Your task to perform on an android device: Go to display settings Image 0: 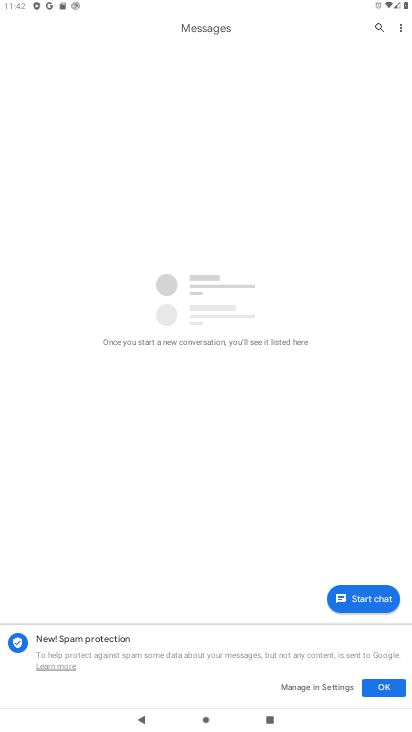
Step 0: press home button
Your task to perform on an android device: Go to display settings Image 1: 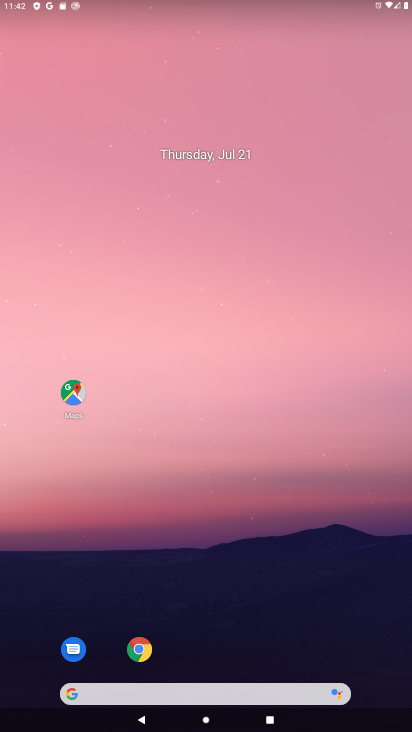
Step 1: drag from (349, 594) to (240, 79)
Your task to perform on an android device: Go to display settings Image 2: 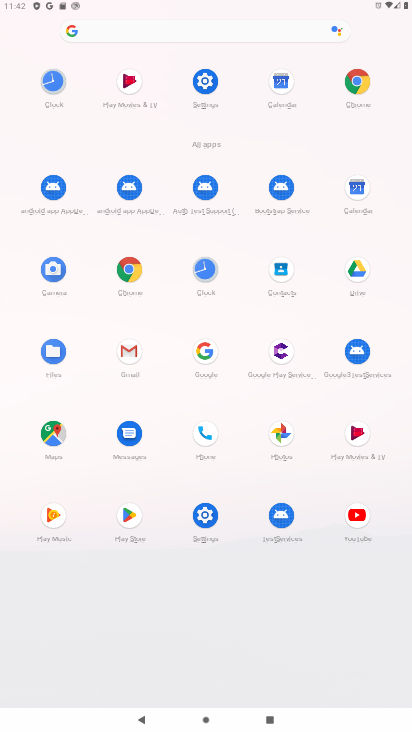
Step 2: click (202, 83)
Your task to perform on an android device: Go to display settings Image 3: 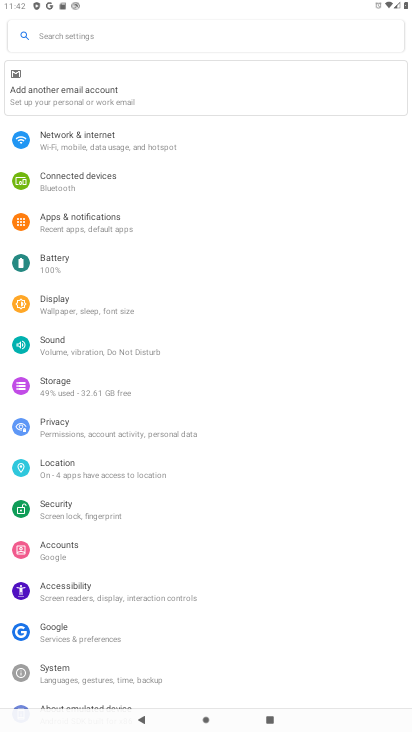
Step 3: click (45, 316)
Your task to perform on an android device: Go to display settings Image 4: 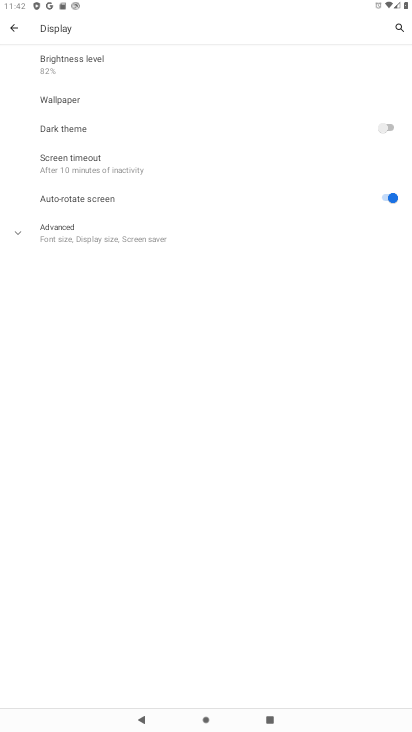
Step 4: task complete